Your task to perform on an android device: star an email in the gmail app Image 0: 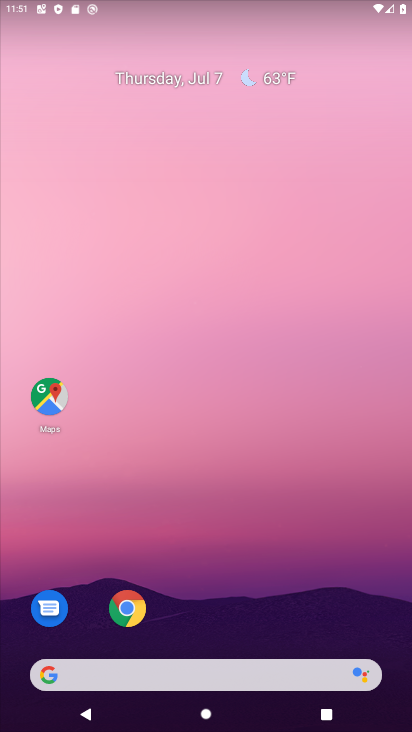
Step 0: drag from (33, 686) to (230, 104)
Your task to perform on an android device: star an email in the gmail app Image 1: 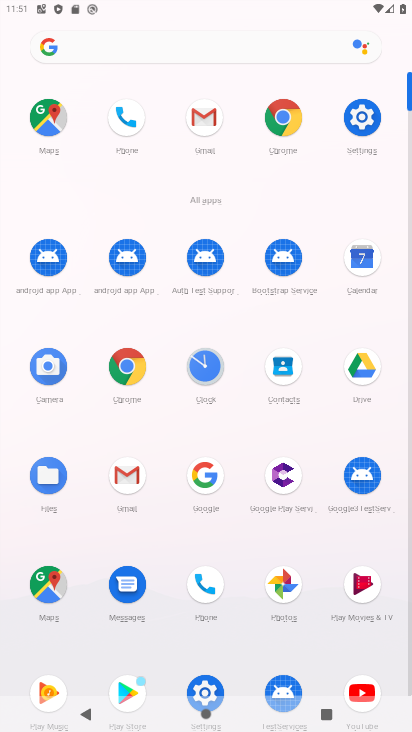
Step 1: click (206, 120)
Your task to perform on an android device: star an email in the gmail app Image 2: 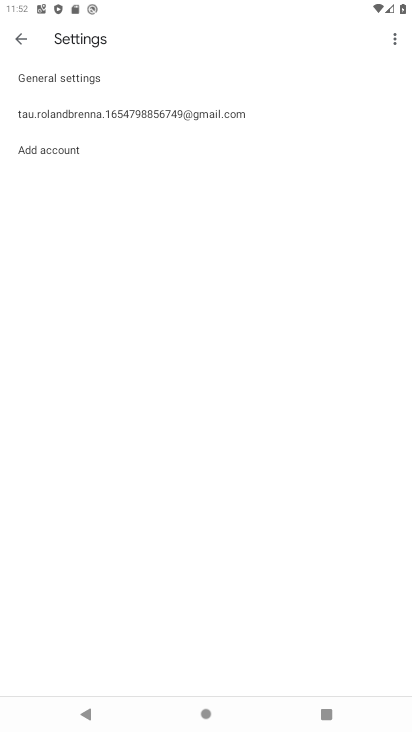
Step 2: click (27, 30)
Your task to perform on an android device: star an email in the gmail app Image 3: 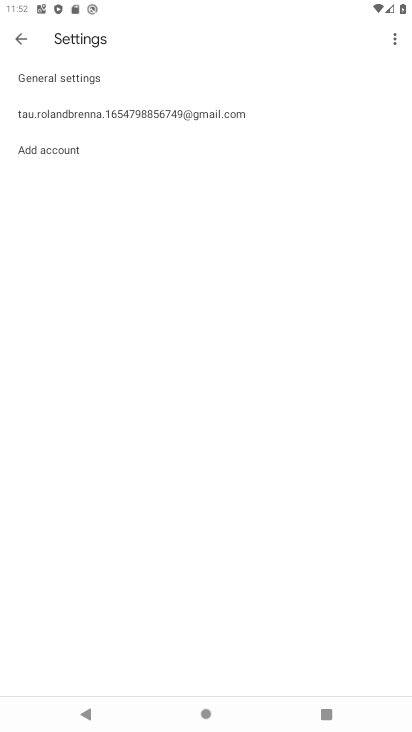
Step 3: click (25, 41)
Your task to perform on an android device: star an email in the gmail app Image 4: 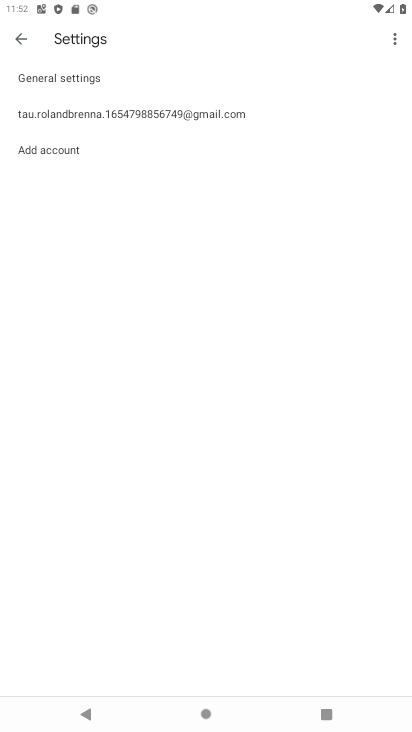
Step 4: press back button
Your task to perform on an android device: star an email in the gmail app Image 5: 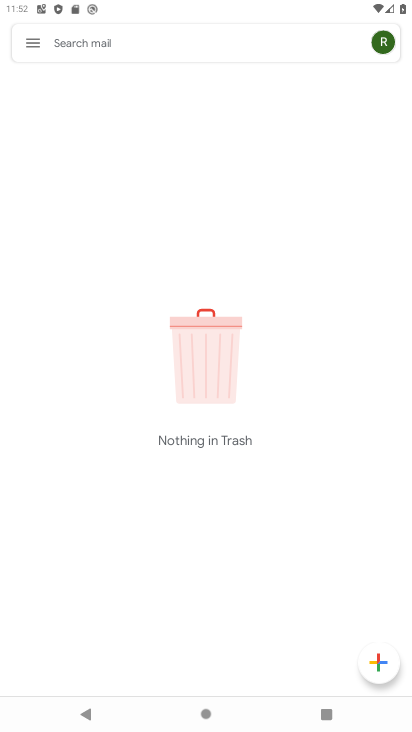
Step 5: click (26, 48)
Your task to perform on an android device: star an email in the gmail app Image 6: 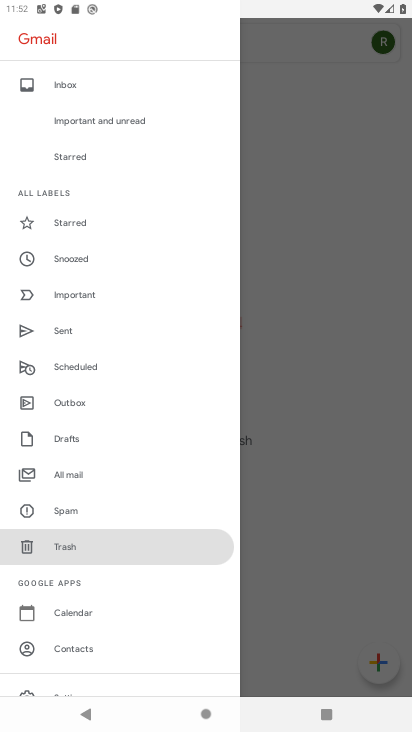
Step 6: click (81, 93)
Your task to perform on an android device: star an email in the gmail app Image 7: 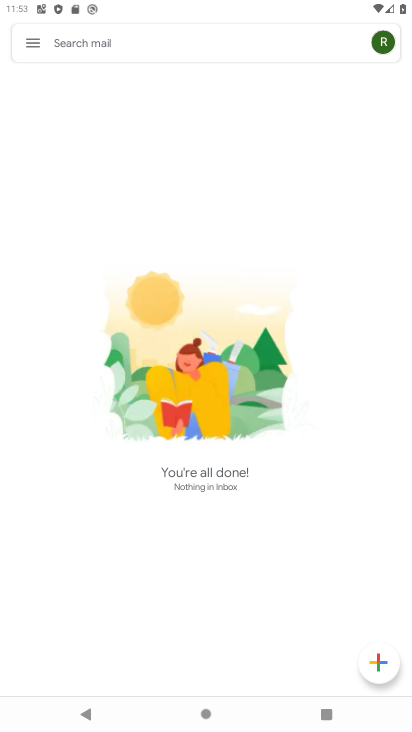
Step 7: task complete